Your task to perform on an android device: find snoozed emails in the gmail app Image 0: 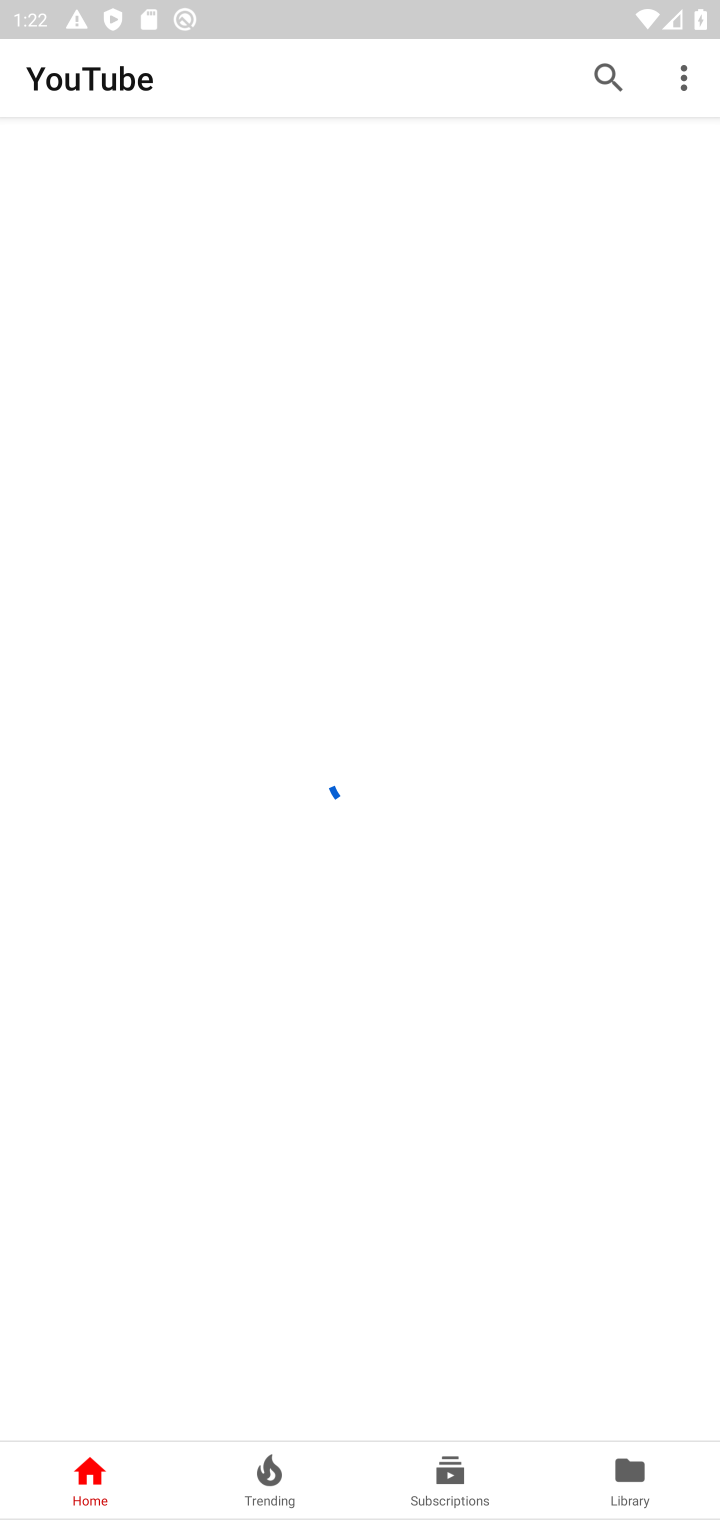
Step 0: press home button
Your task to perform on an android device: find snoozed emails in the gmail app Image 1: 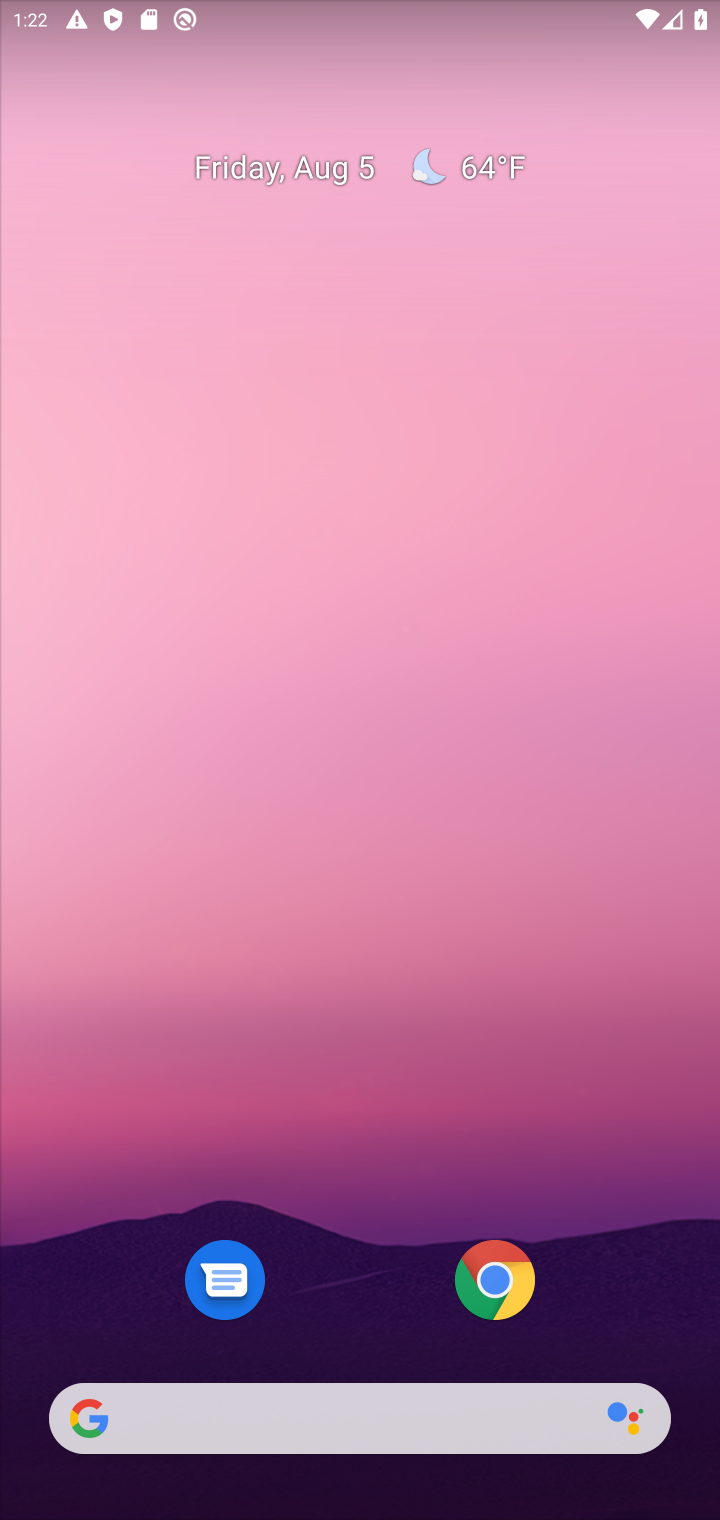
Step 1: drag from (383, 1302) to (464, 9)
Your task to perform on an android device: find snoozed emails in the gmail app Image 2: 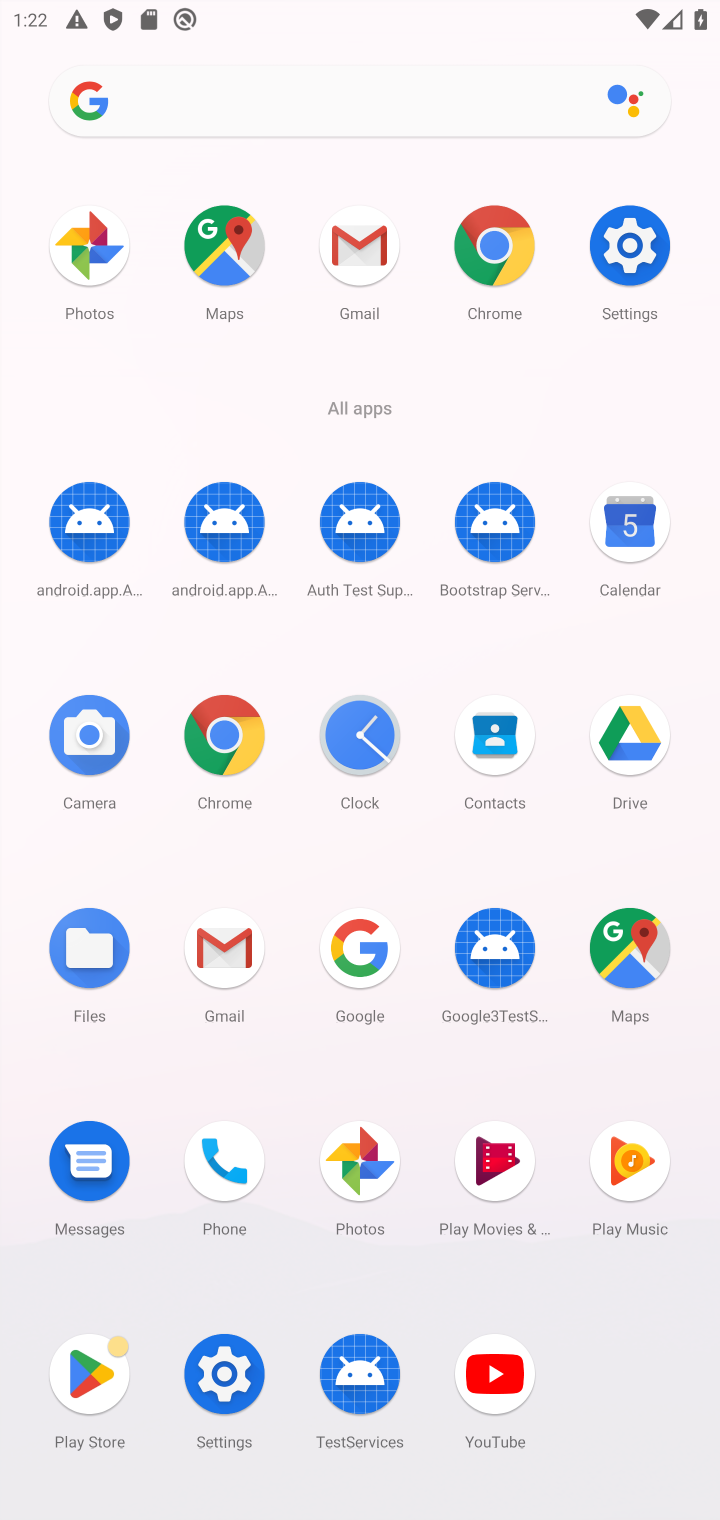
Step 2: click (225, 945)
Your task to perform on an android device: find snoozed emails in the gmail app Image 3: 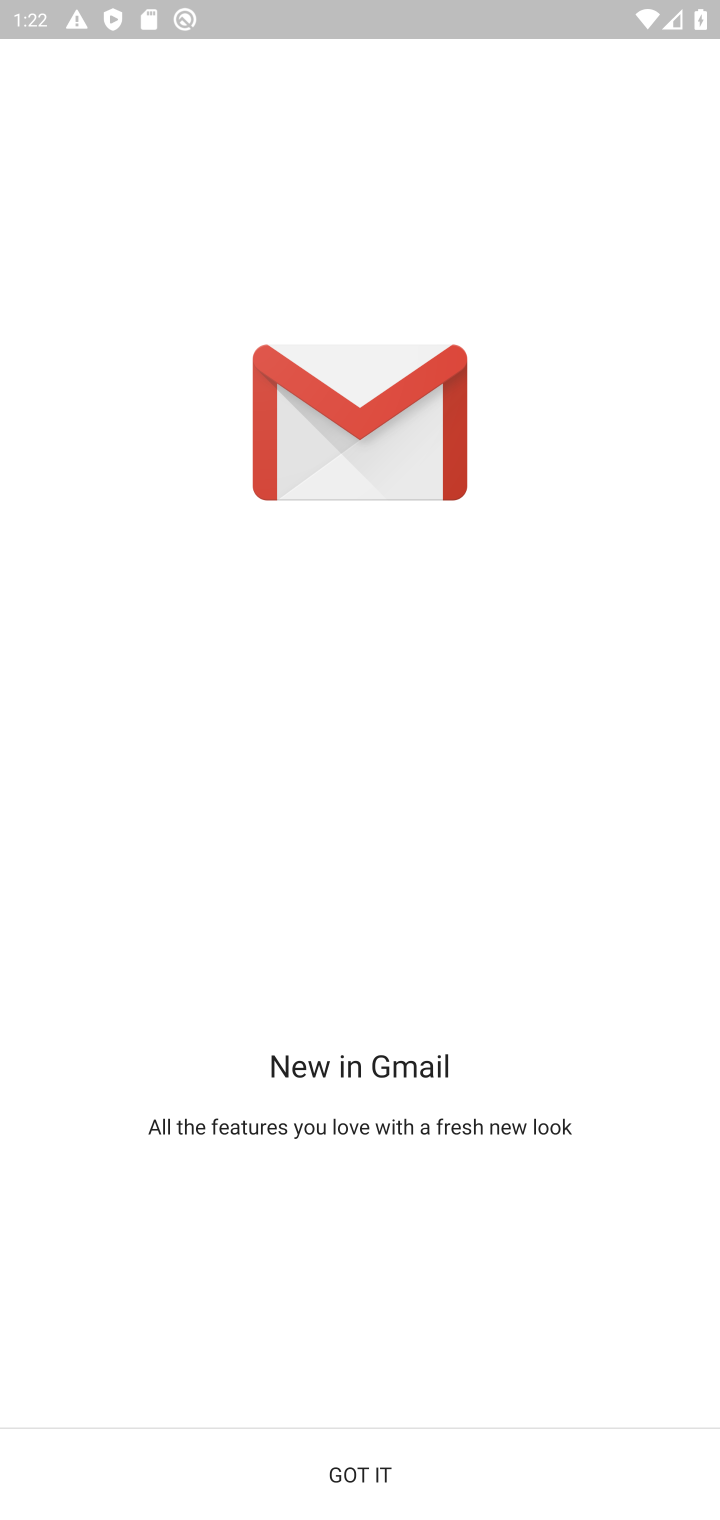
Step 3: click (437, 1456)
Your task to perform on an android device: find snoozed emails in the gmail app Image 4: 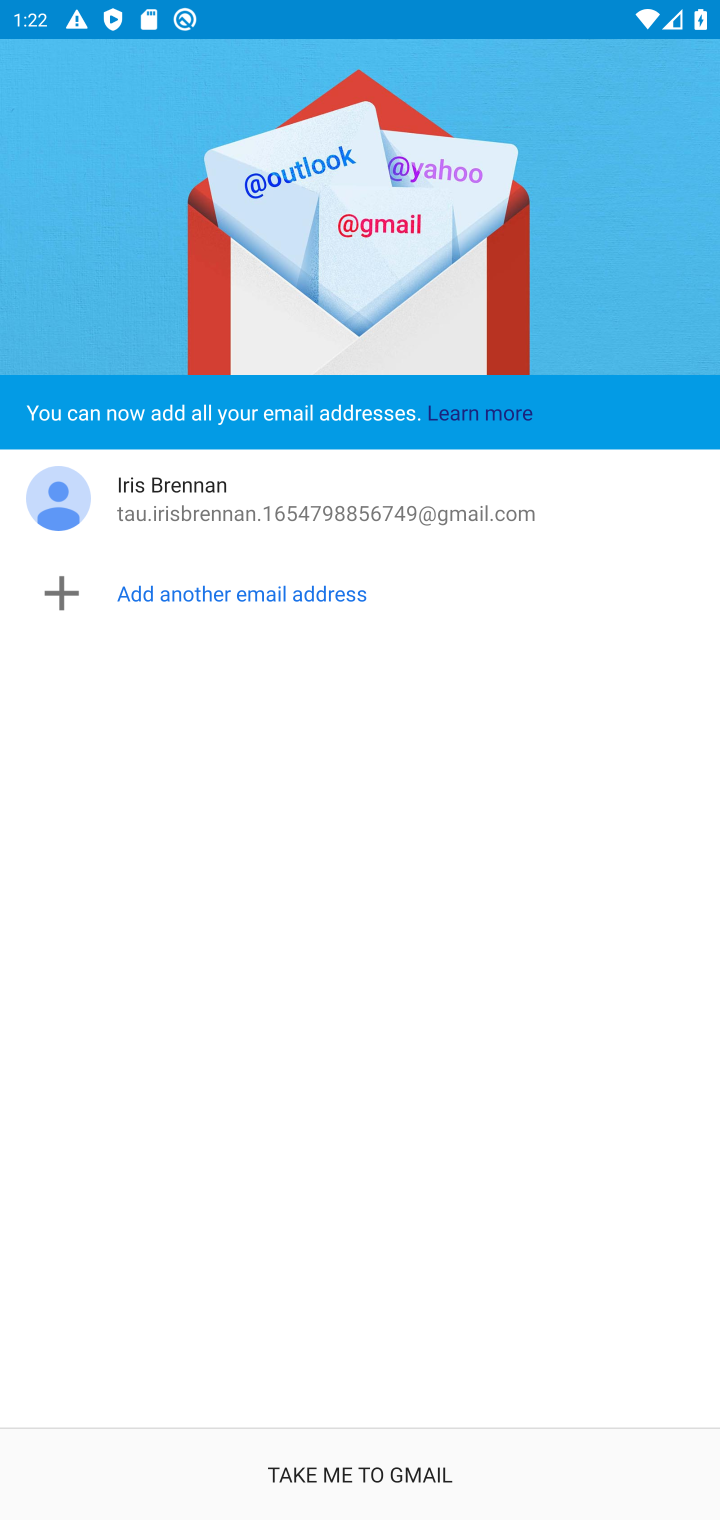
Step 4: click (495, 1512)
Your task to perform on an android device: find snoozed emails in the gmail app Image 5: 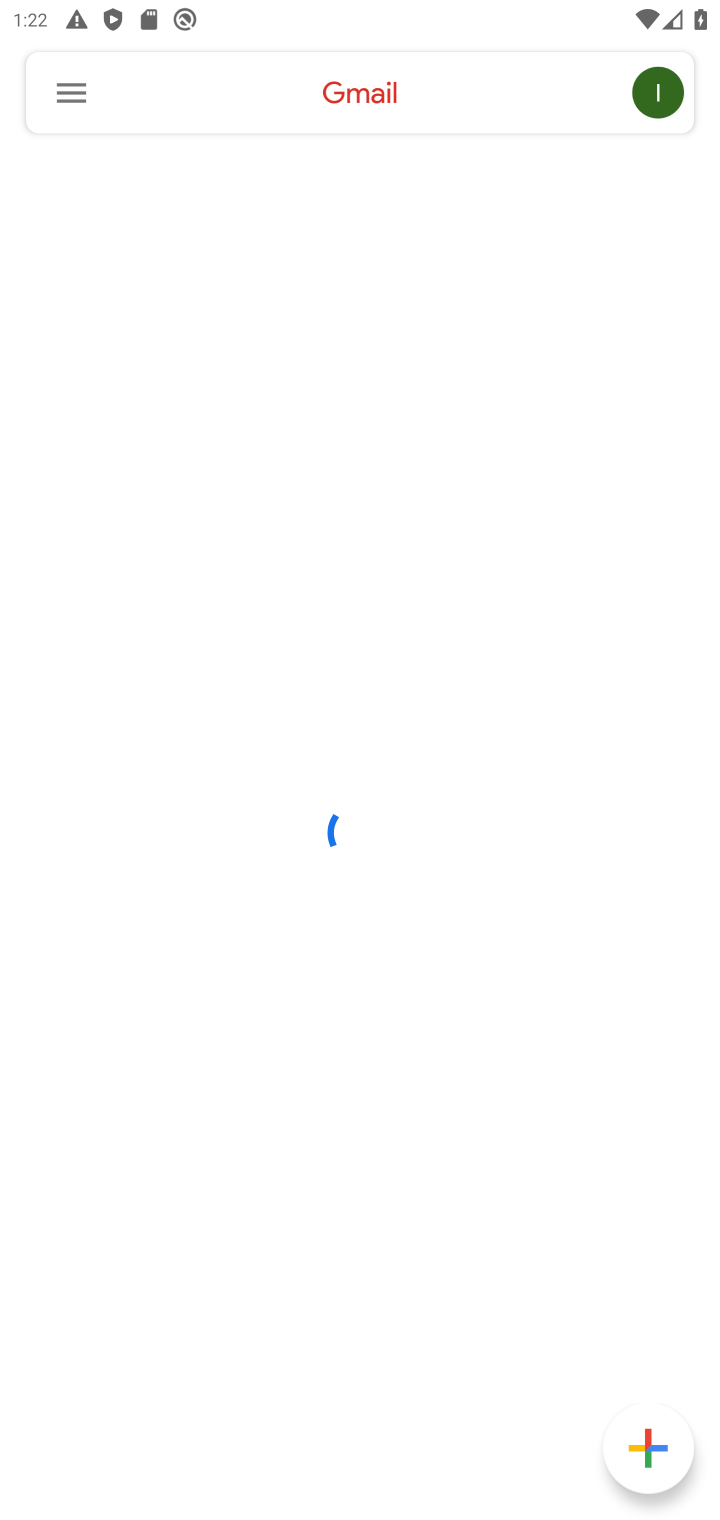
Step 5: click (65, 91)
Your task to perform on an android device: find snoozed emails in the gmail app Image 6: 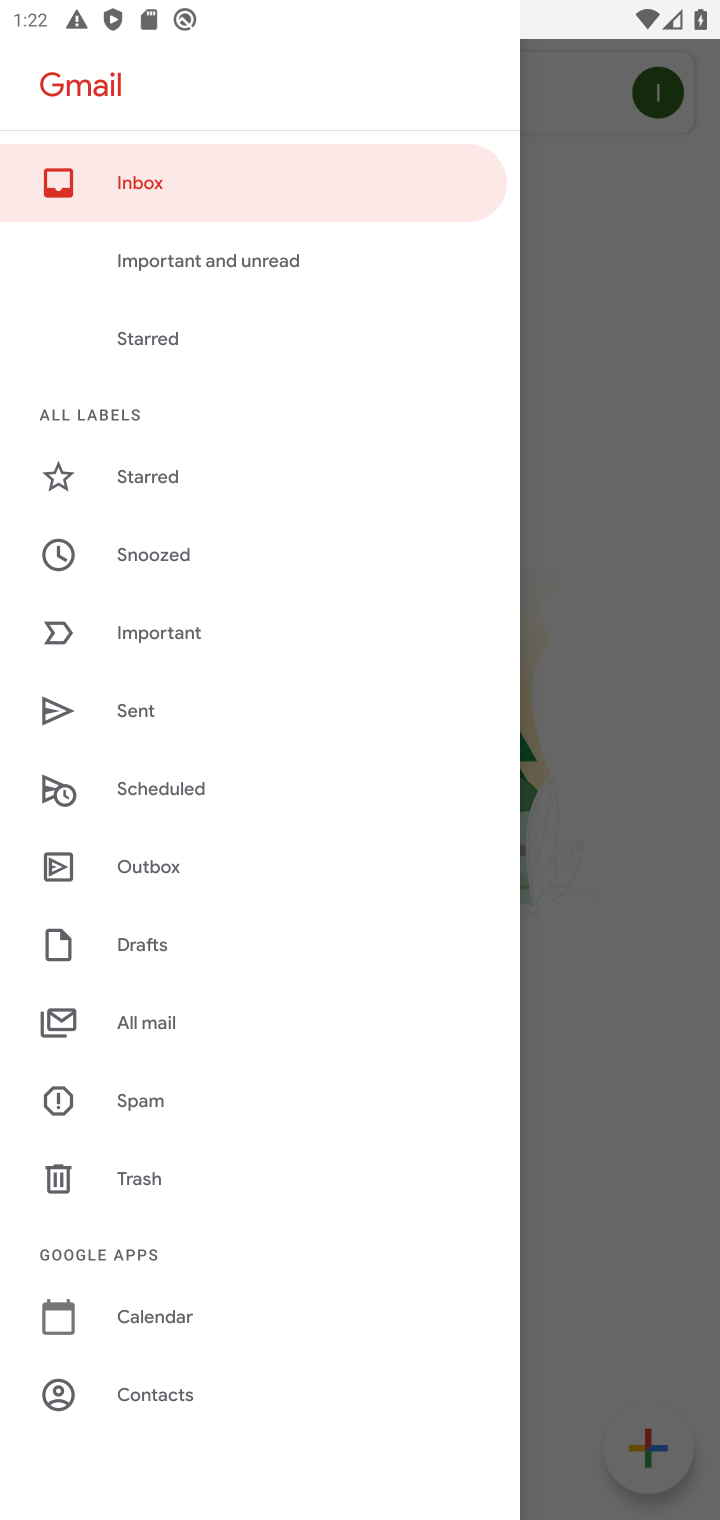
Step 6: click (167, 554)
Your task to perform on an android device: find snoozed emails in the gmail app Image 7: 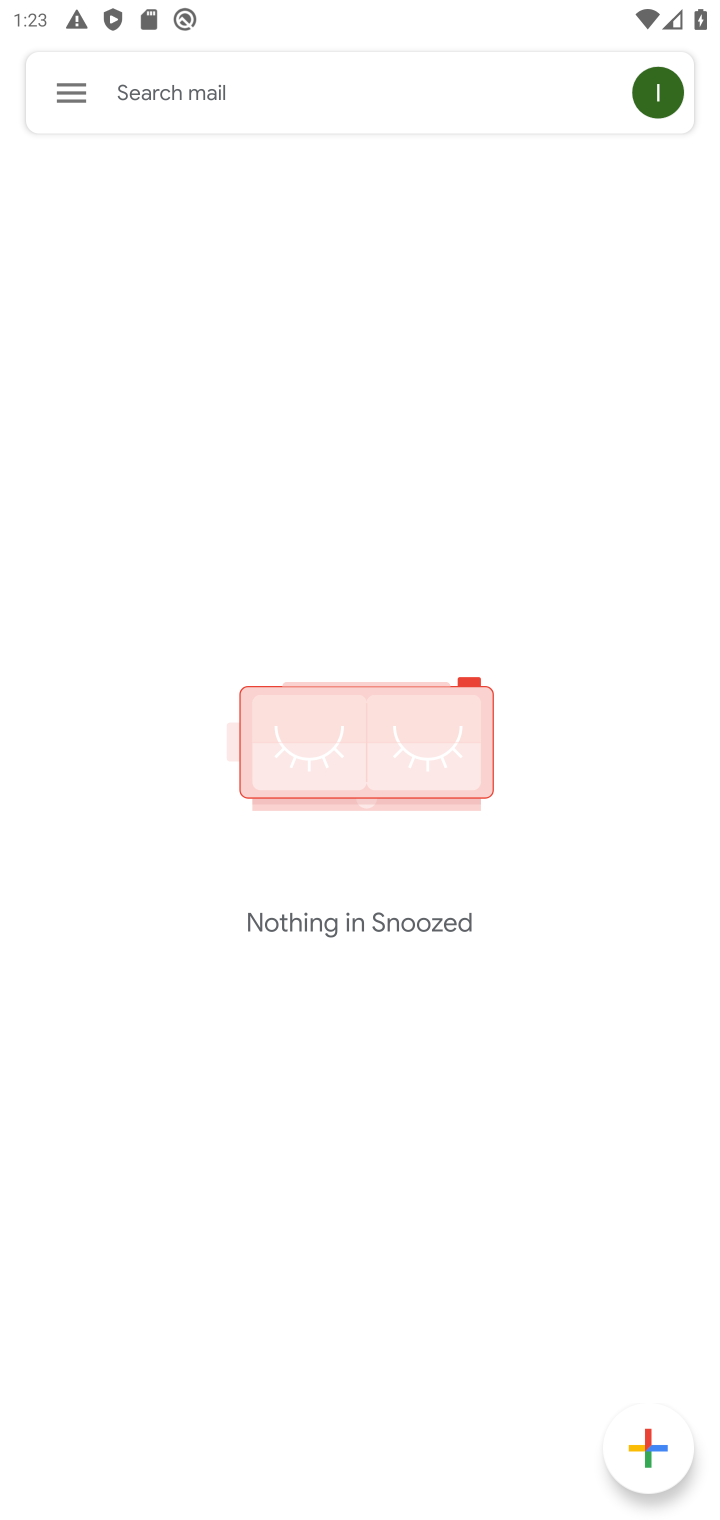
Step 7: task complete